Your task to perform on an android device: turn off airplane mode Image 0: 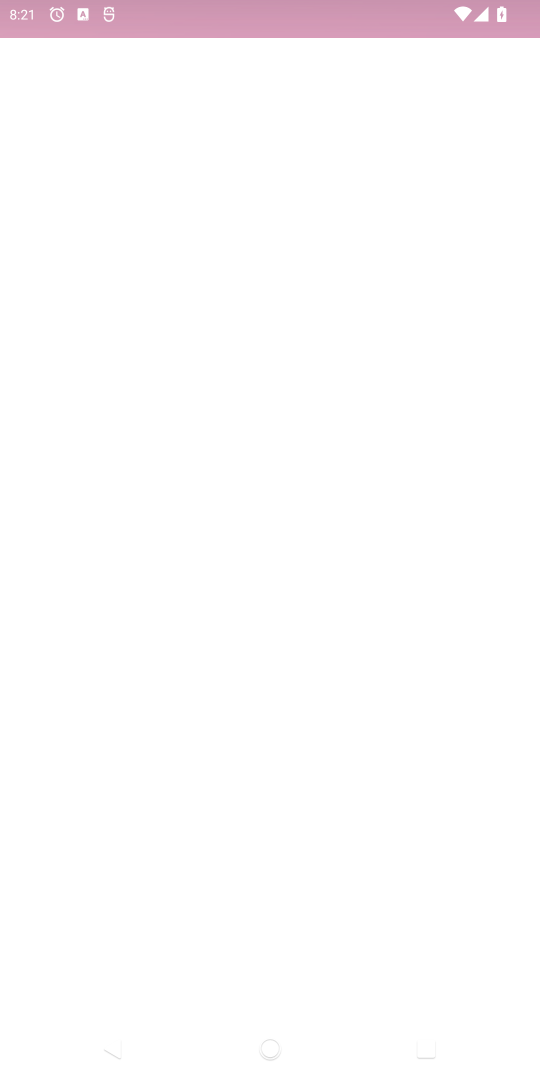
Step 0: press home button
Your task to perform on an android device: turn off airplane mode Image 1: 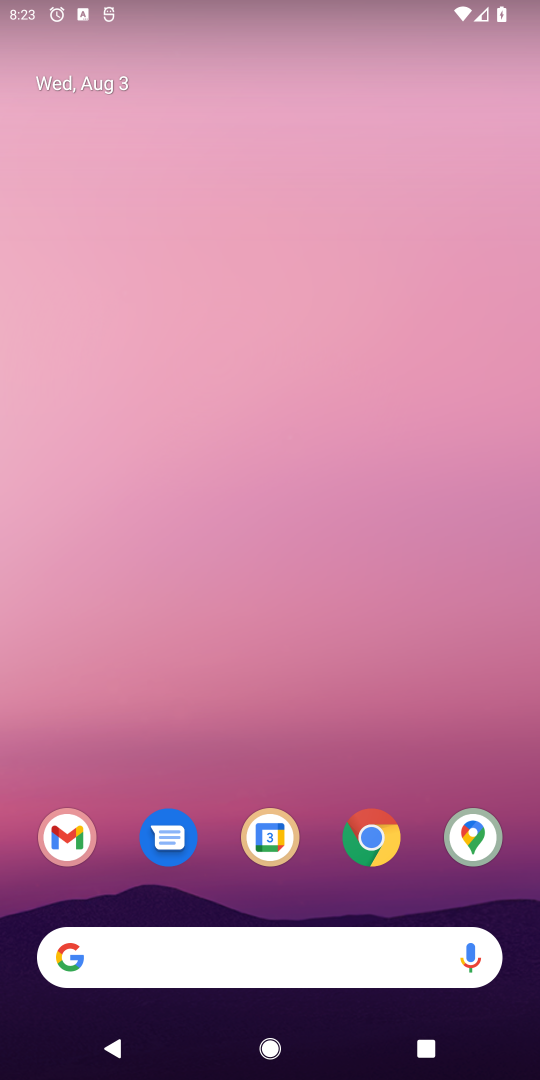
Step 1: click (272, 14)
Your task to perform on an android device: turn off airplane mode Image 2: 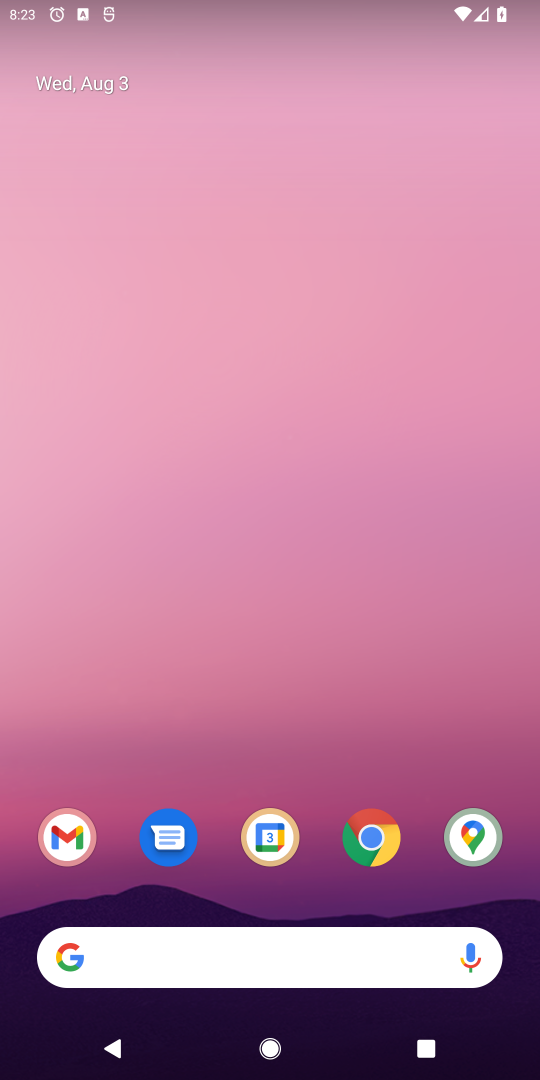
Step 2: task complete